Your task to perform on an android device: Check the weather Image 0: 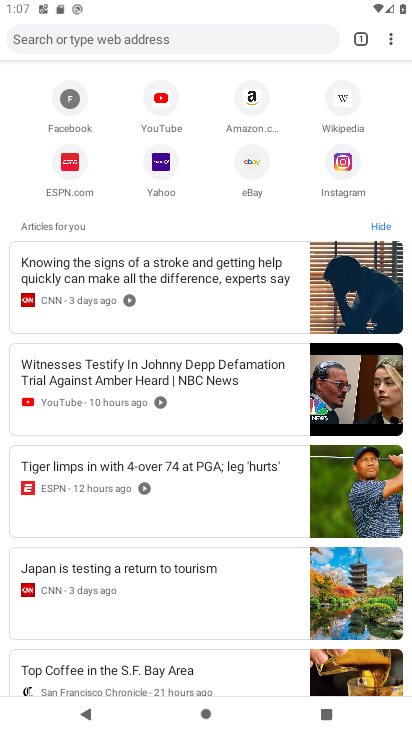
Step 0: click (143, 45)
Your task to perform on an android device: Check the weather Image 1: 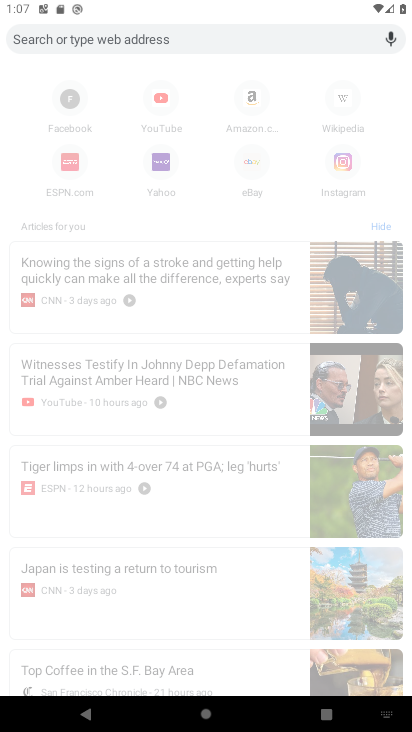
Step 1: type "weather"
Your task to perform on an android device: Check the weather Image 2: 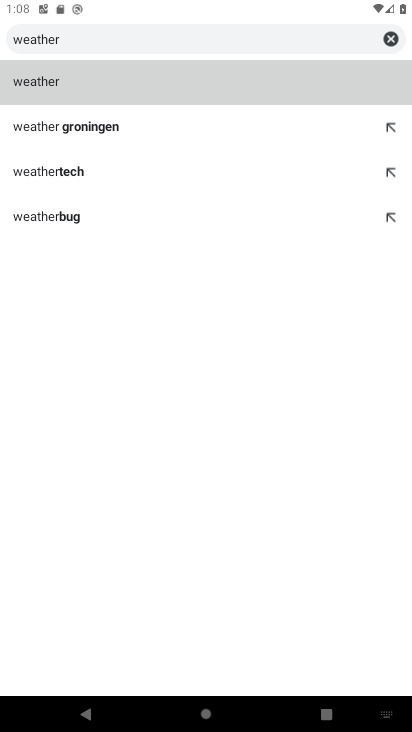
Step 2: click (103, 81)
Your task to perform on an android device: Check the weather Image 3: 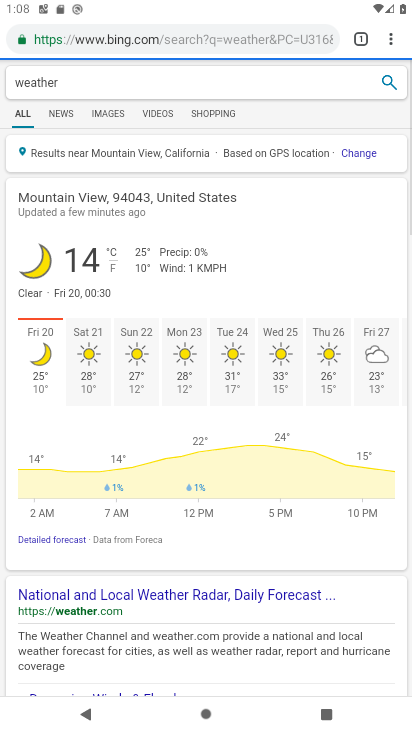
Step 3: task complete